Your task to perform on an android device: What's the weather going to be this weekend? Image 0: 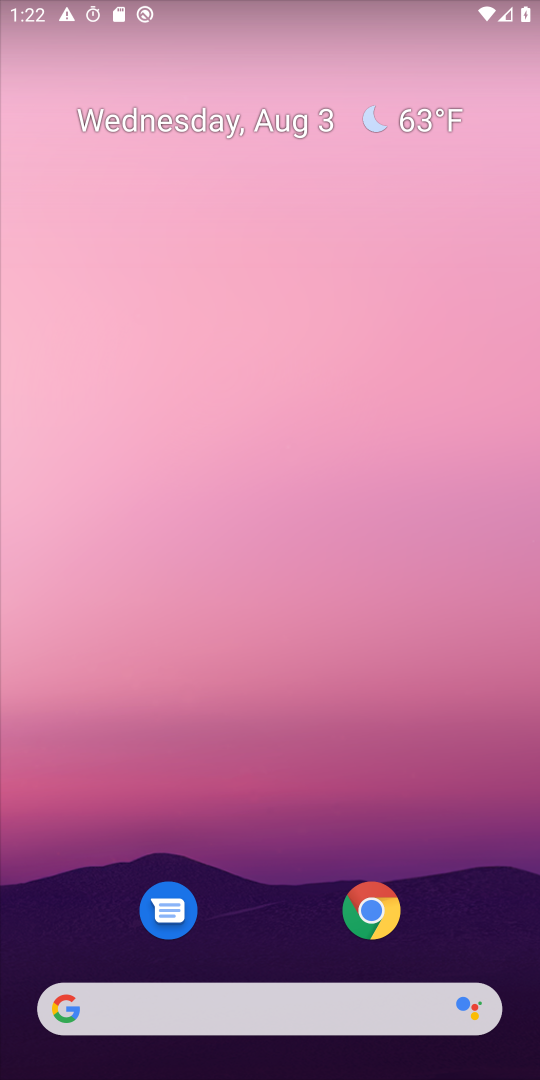
Step 0: drag from (208, 892) to (314, 13)
Your task to perform on an android device: What's the weather going to be this weekend? Image 1: 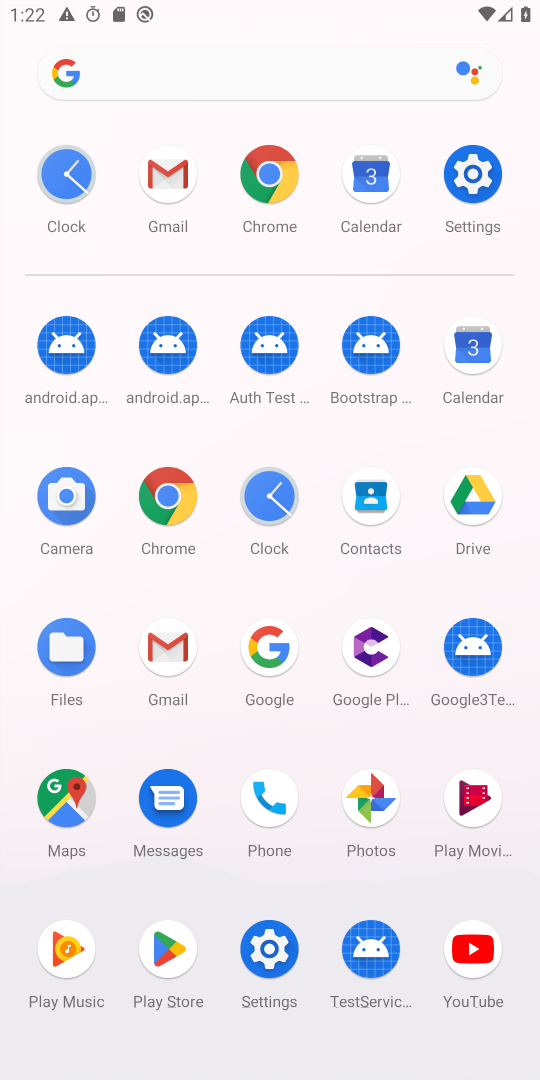
Step 1: click (177, 499)
Your task to perform on an android device: What's the weather going to be this weekend? Image 2: 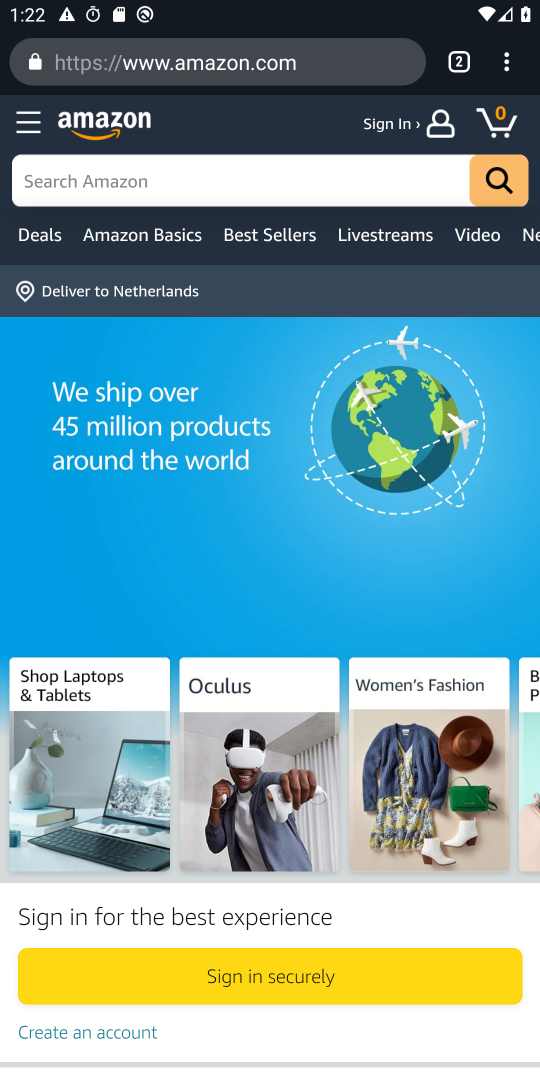
Step 2: click (336, 57)
Your task to perform on an android device: What's the weather going to be this weekend? Image 3: 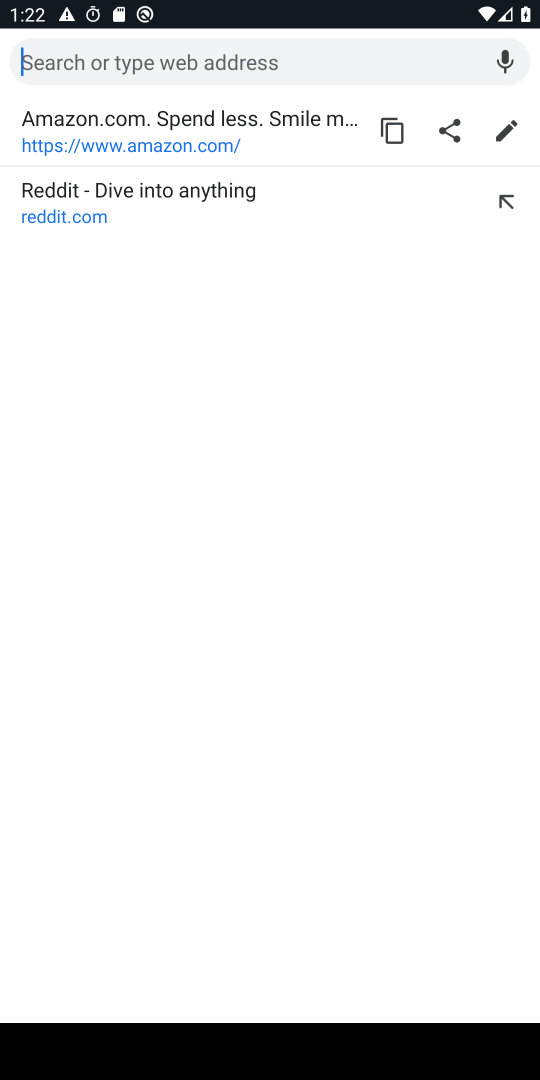
Step 3: type "weather going to be this weekend"
Your task to perform on an android device: What's the weather going to be this weekend? Image 4: 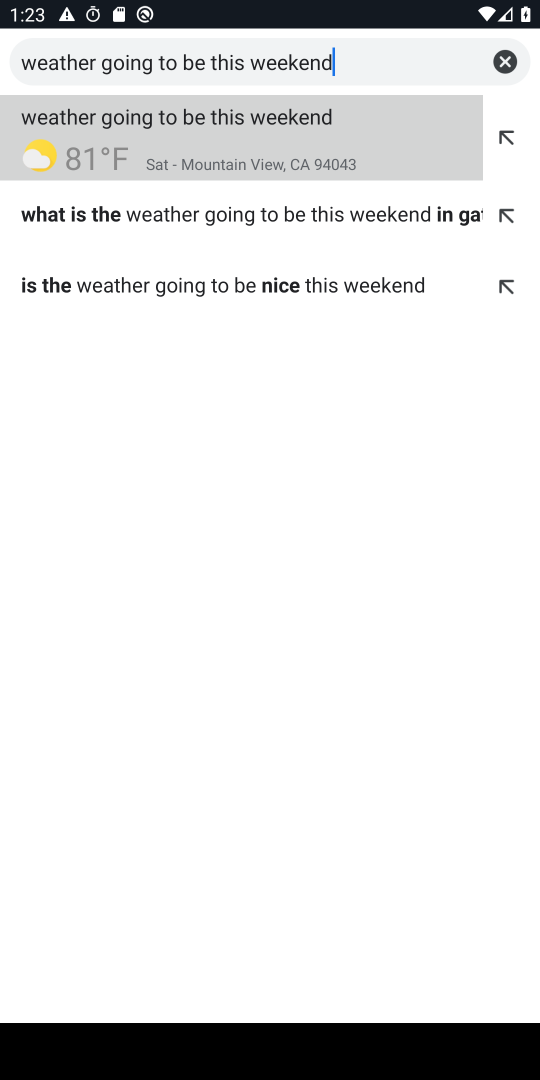
Step 4: click (365, 136)
Your task to perform on an android device: What's the weather going to be this weekend? Image 5: 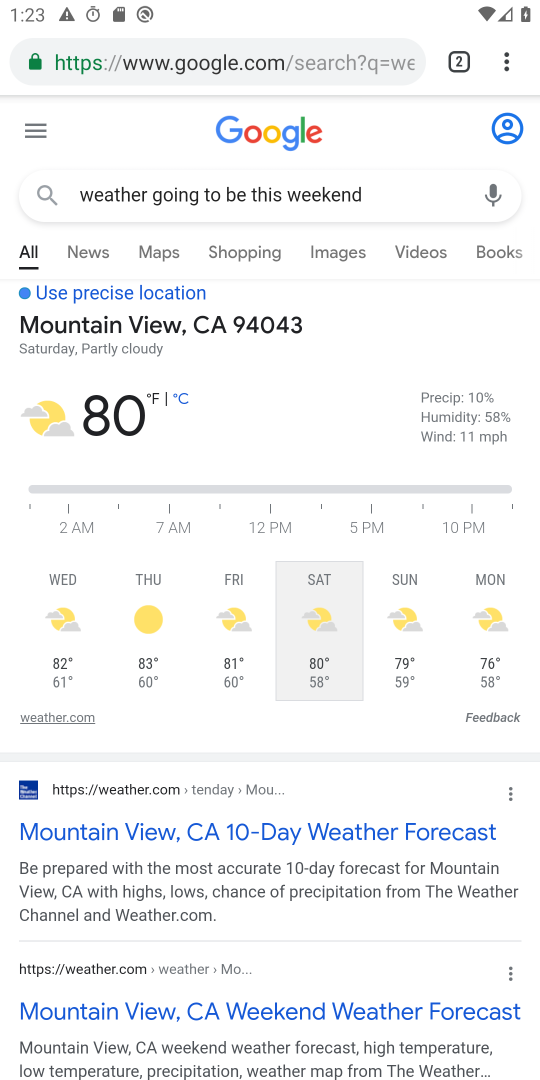
Step 5: task complete